Your task to perform on an android device: add a contact in the contacts app Image 0: 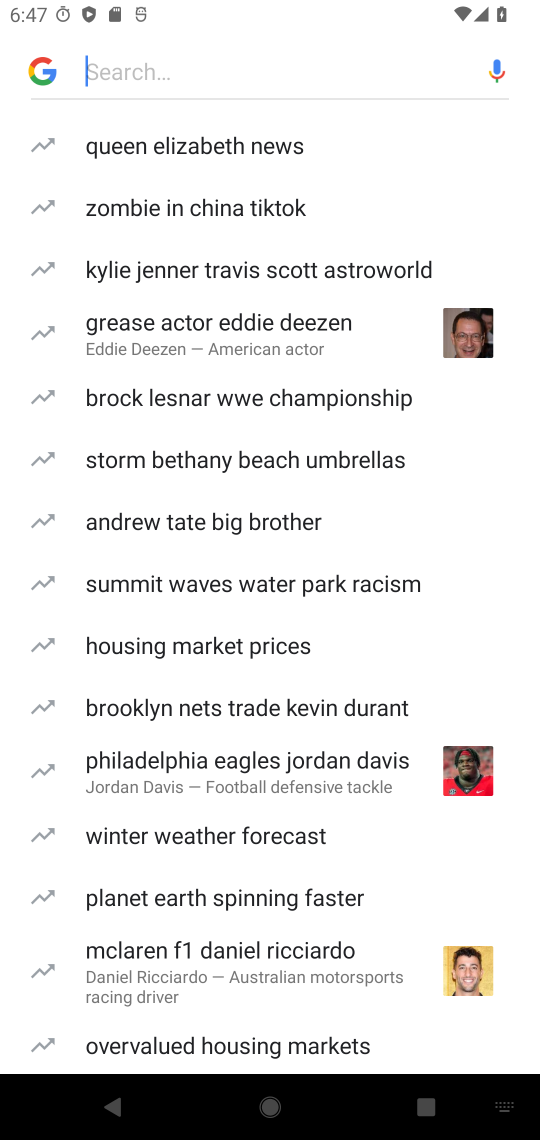
Step 0: press home button
Your task to perform on an android device: add a contact in the contacts app Image 1: 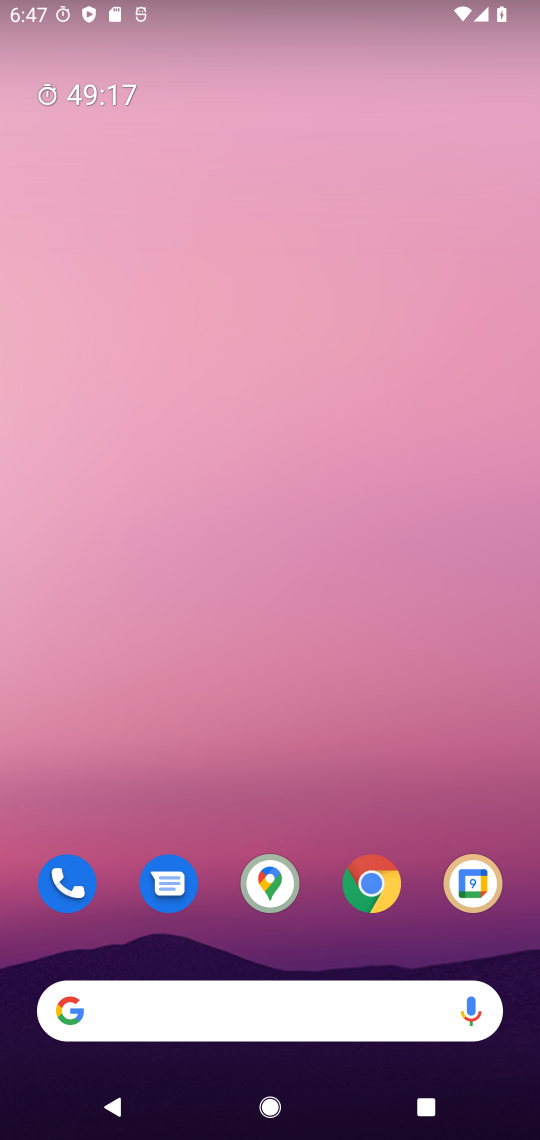
Step 1: drag from (304, 781) to (307, 125)
Your task to perform on an android device: add a contact in the contacts app Image 2: 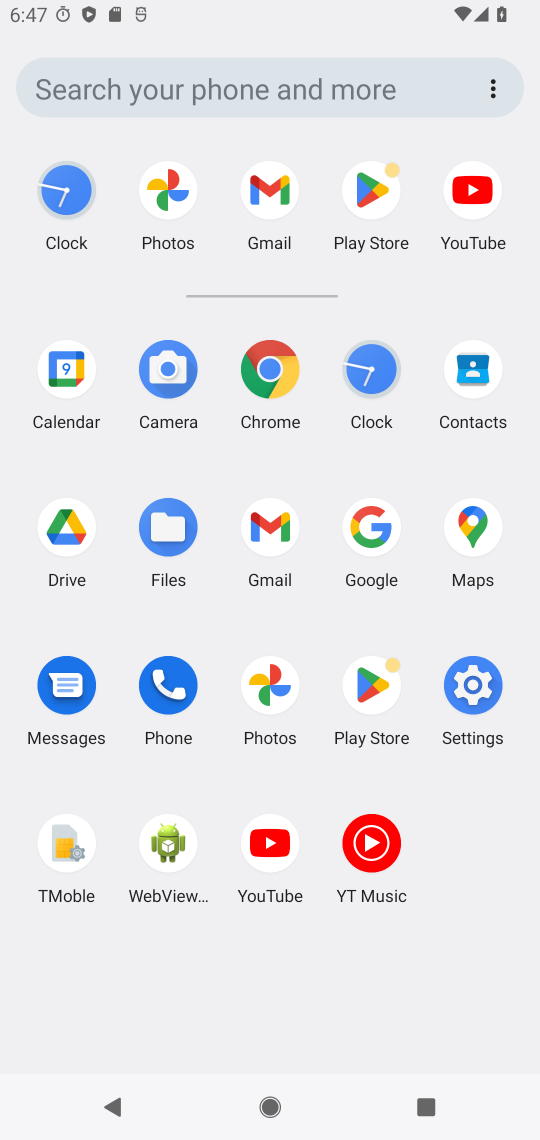
Step 2: click (459, 380)
Your task to perform on an android device: add a contact in the contacts app Image 3: 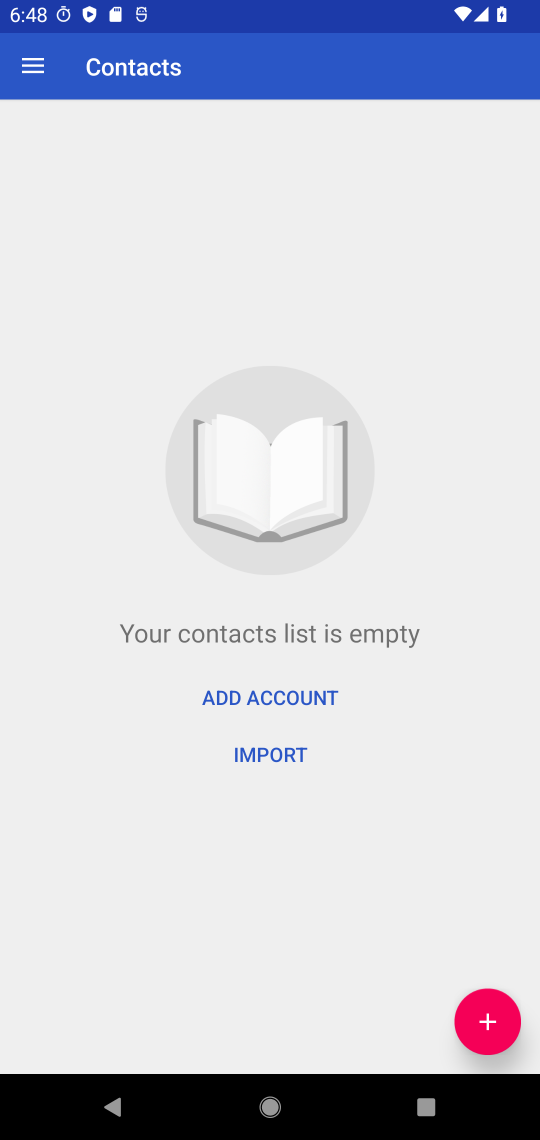
Step 3: click (500, 1009)
Your task to perform on an android device: add a contact in the contacts app Image 4: 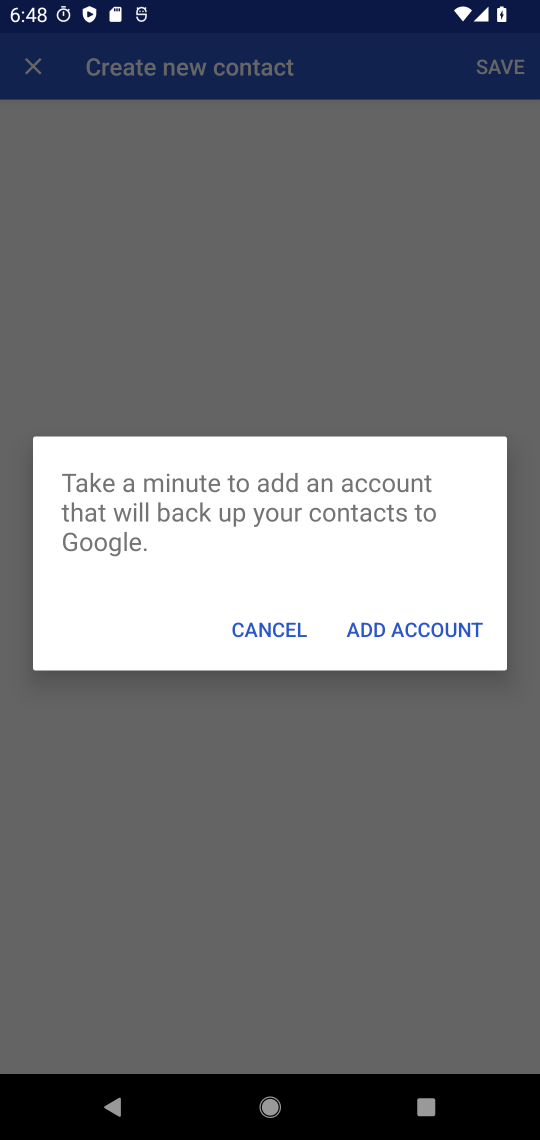
Step 4: click (244, 629)
Your task to perform on an android device: add a contact in the contacts app Image 5: 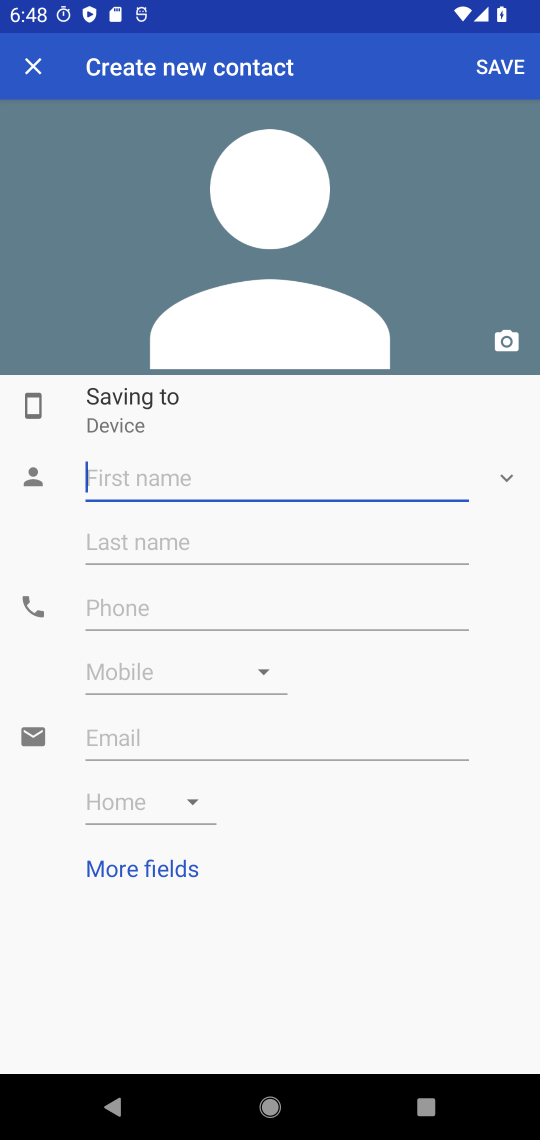
Step 5: type "aa"
Your task to perform on an android device: add a contact in the contacts app Image 6: 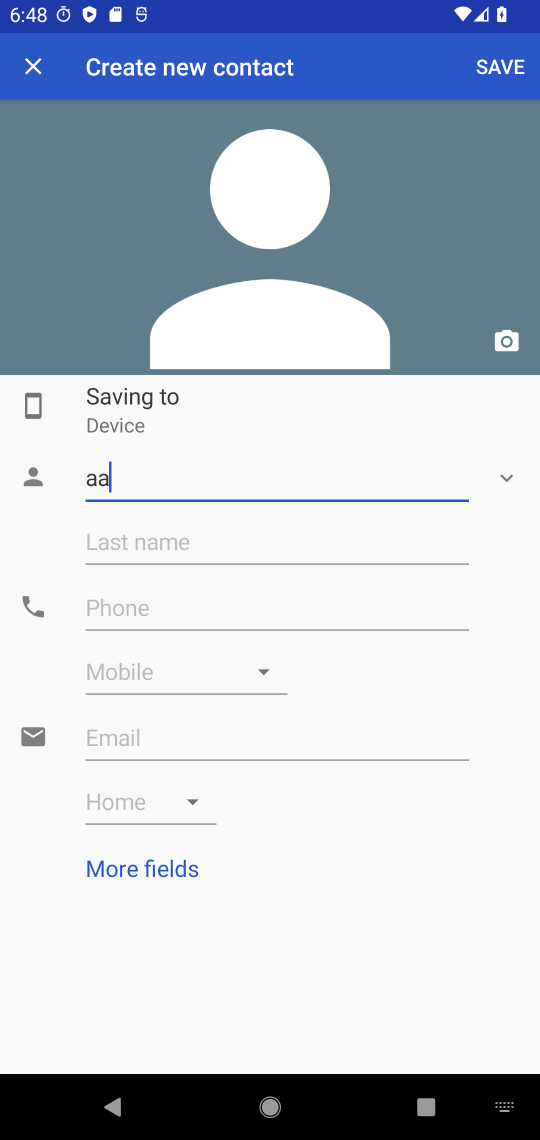
Step 6: click (198, 609)
Your task to perform on an android device: add a contact in the contacts app Image 7: 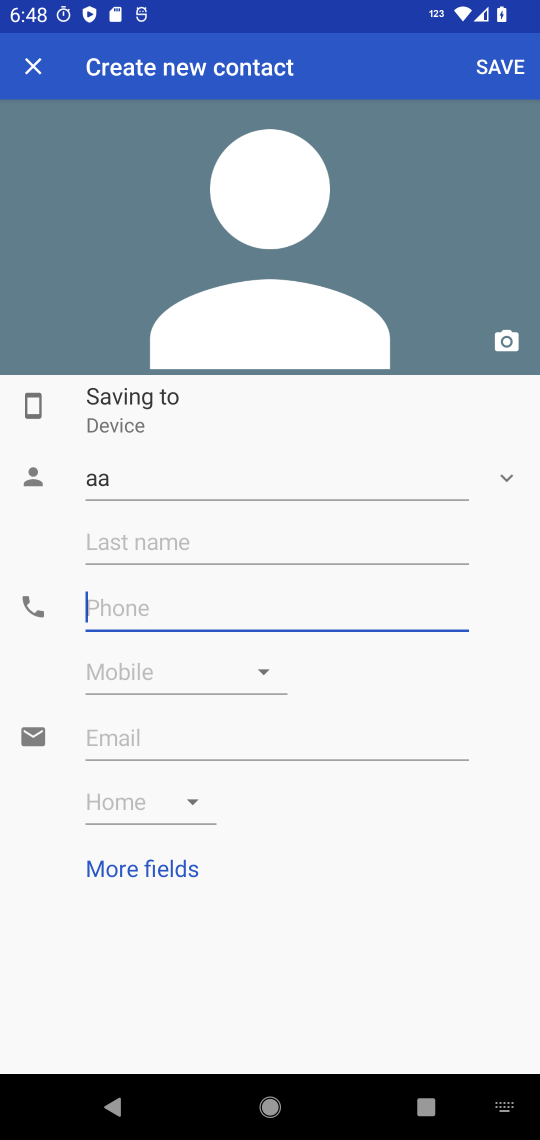
Step 7: type "856857547436"
Your task to perform on an android device: add a contact in the contacts app Image 8: 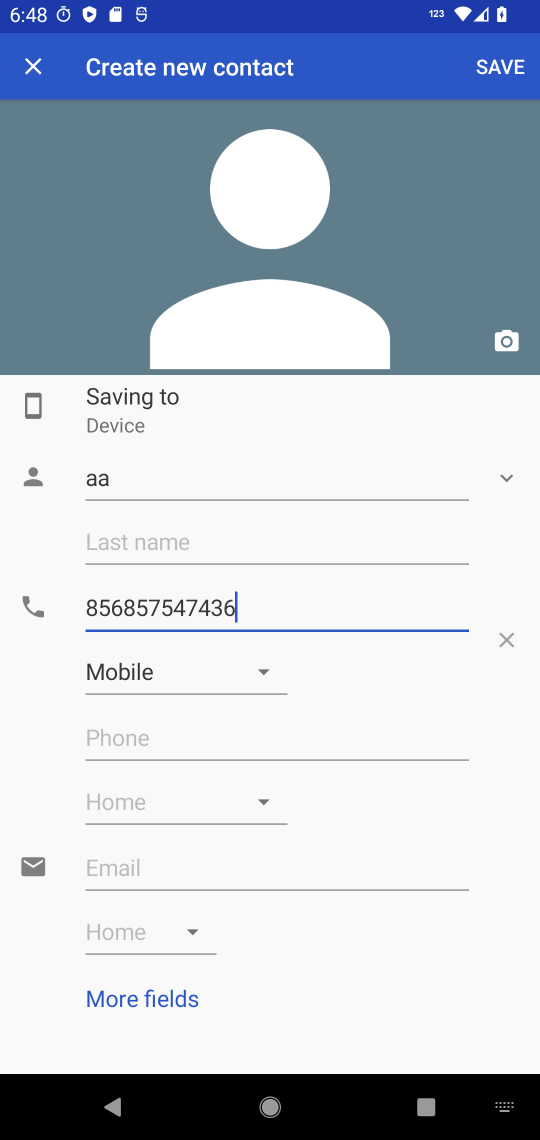
Step 8: click (488, 61)
Your task to perform on an android device: add a contact in the contacts app Image 9: 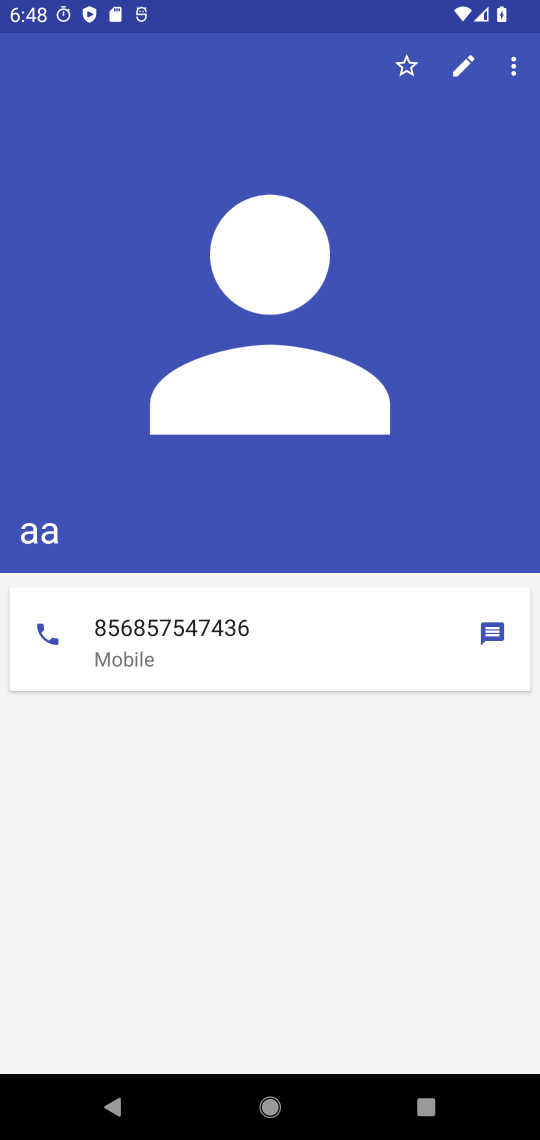
Step 9: task complete